Your task to perform on an android device: change keyboard looks Image 0: 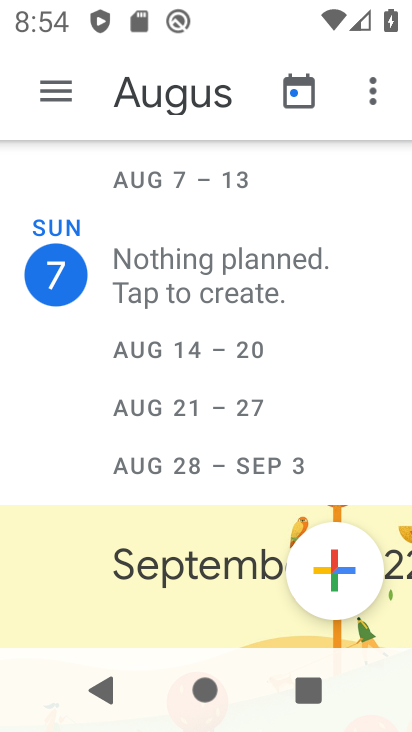
Step 0: press home button
Your task to perform on an android device: change keyboard looks Image 1: 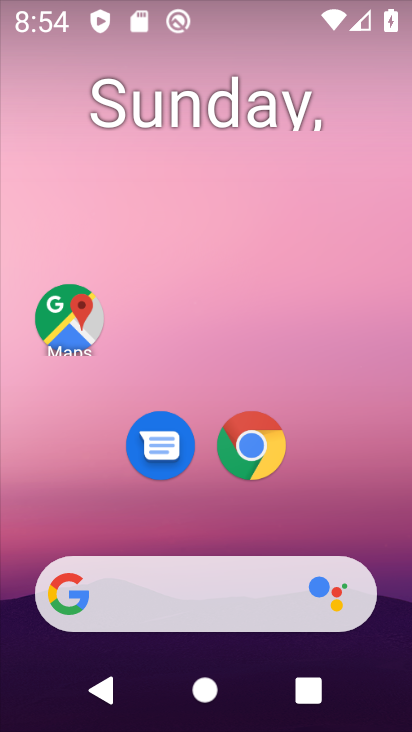
Step 1: press home button
Your task to perform on an android device: change keyboard looks Image 2: 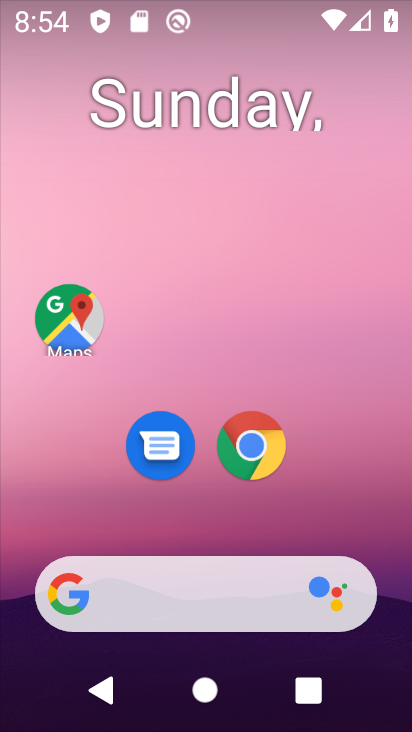
Step 2: drag from (321, 492) to (325, 80)
Your task to perform on an android device: change keyboard looks Image 3: 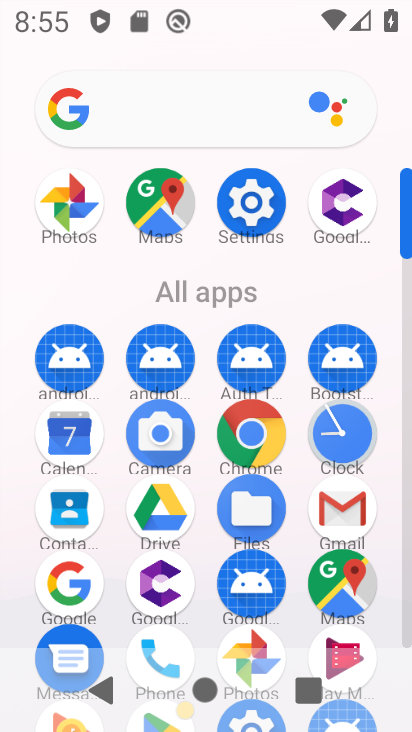
Step 3: drag from (251, 651) to (343, 150)
Your task to perform on an android device: change keyboard looks Image 4: 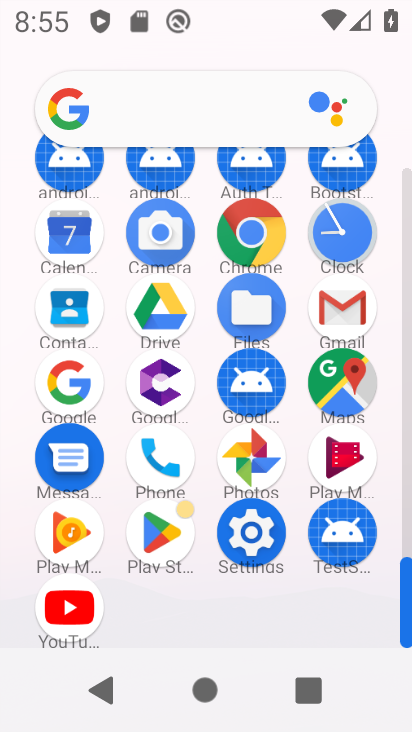
Step 4: click (259, 520)
Your task to perform on an android device: change keyboard looks Image 5: 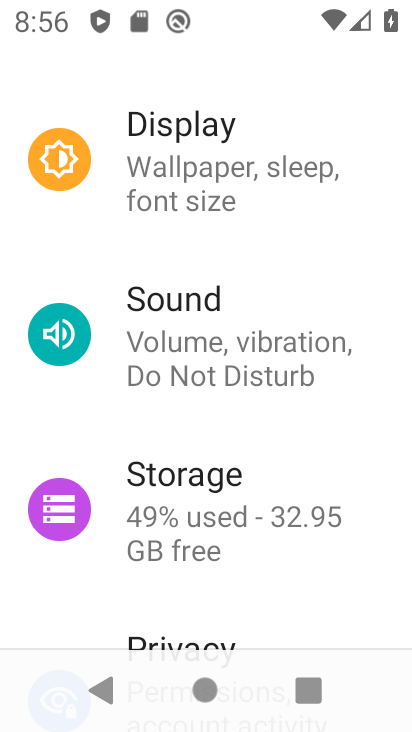
Step 5: drag from (239, 533) to (277, 112)
Your task to perform on an android device: change keyboard looks Image 6: 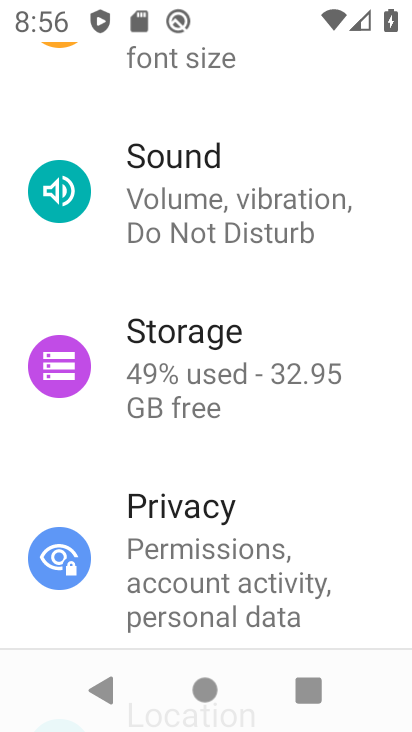
Step 6: drag from (304, 479) to (336, 64)
Your task to perform on an android device: change keyboard looks Image 7: 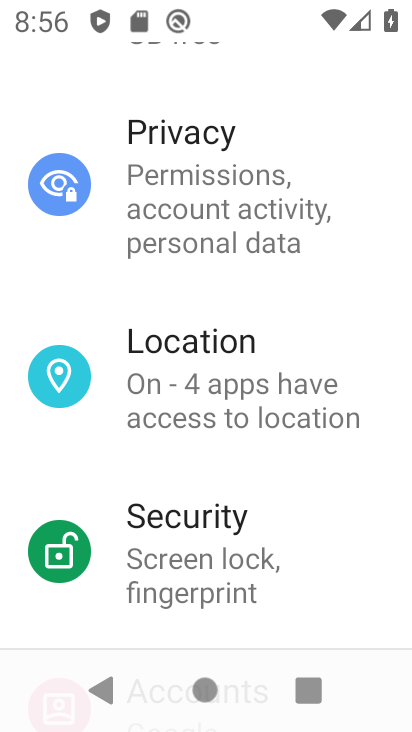
Step 7: drag from (242, 589) to (292, 96)
Your task to perform on an android device: change keyboard looks Image 8: 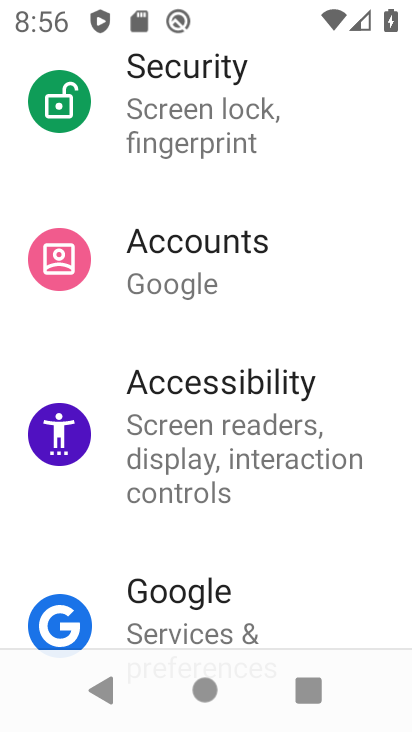
Step 8: drag from (262, 569) to (313, 3)
Your task to perform on an android device: change keyboard looks Image 9: 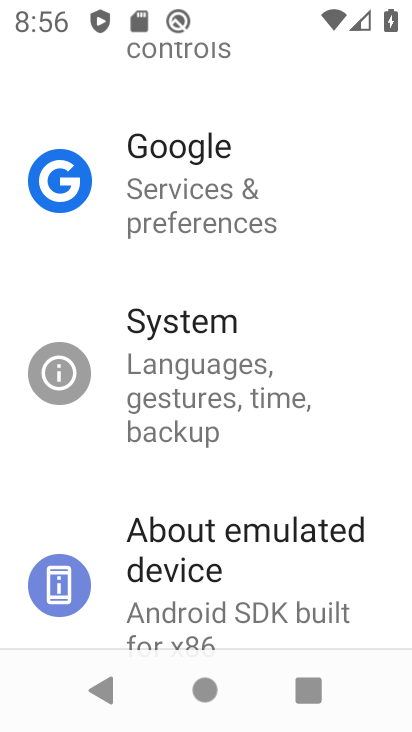
Step 9: click (190, 353)
Your task to perform on an android device: change keyboard looks Image 10: 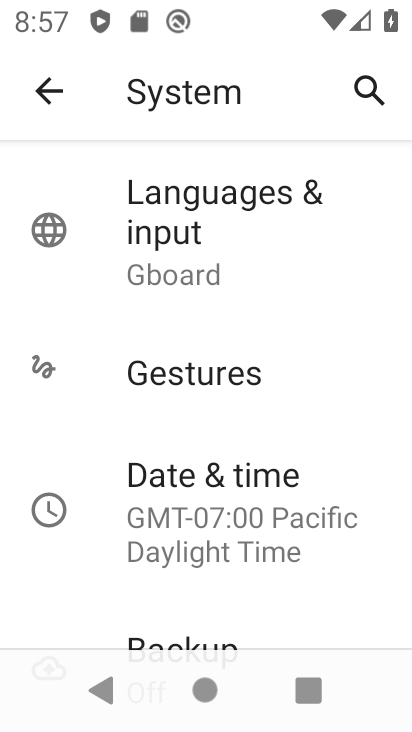
Step 10: click (183, 238)
Your task to perform on an android device: change keyboard looks Image 11: 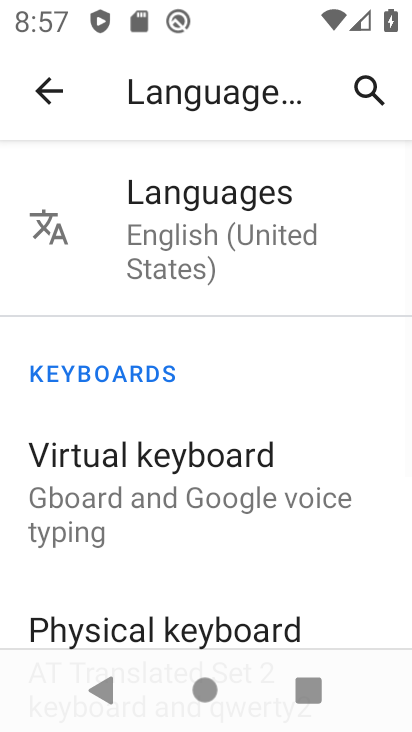
Step 11: drag from (144, 522) to (176, 190)
Your task to perform on an android device: change keyboard looks Image 12: 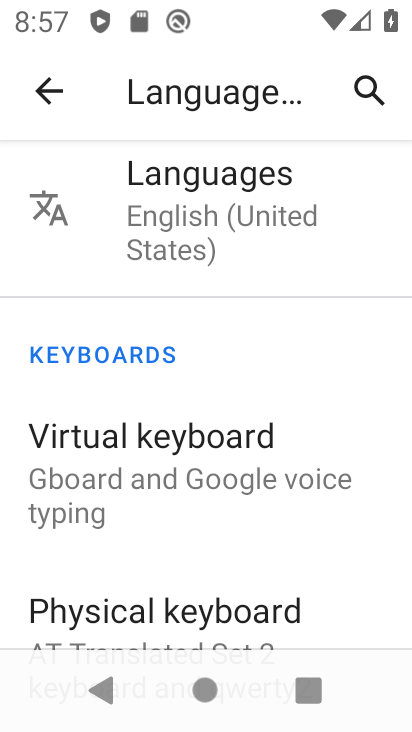
Step 12: click (142, 438)
Your task to perform on an android device: change keyboard looks Image 13: 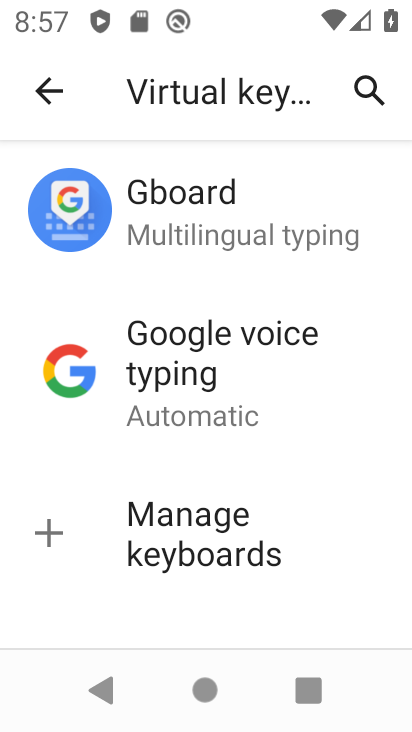
Step 13: click (200, 207)
Your task to perform on an android device: change keyboard looks Image 14: 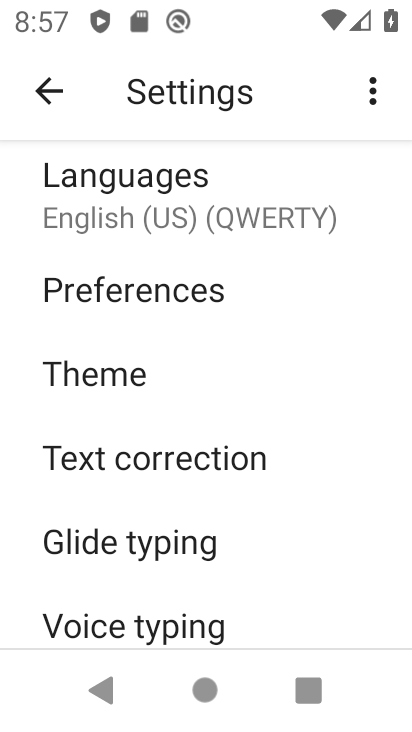
Step 14: click (86, 363)
Your task to perform on an android device: change keyboard looks Image 15: 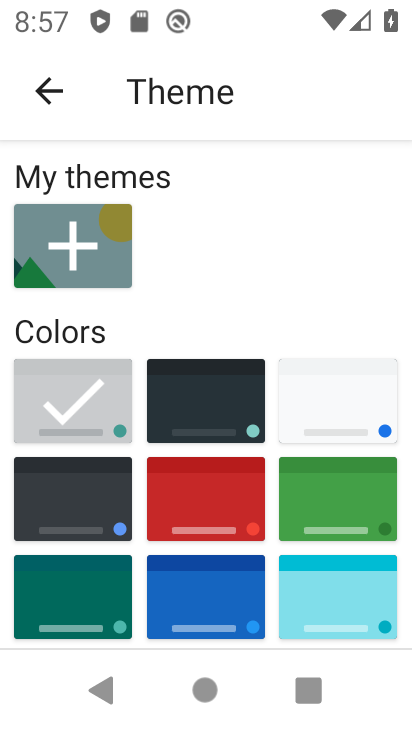
Step 15: click (198, 400)
Your task to perform on an android device: change keyboard looks Image 16: 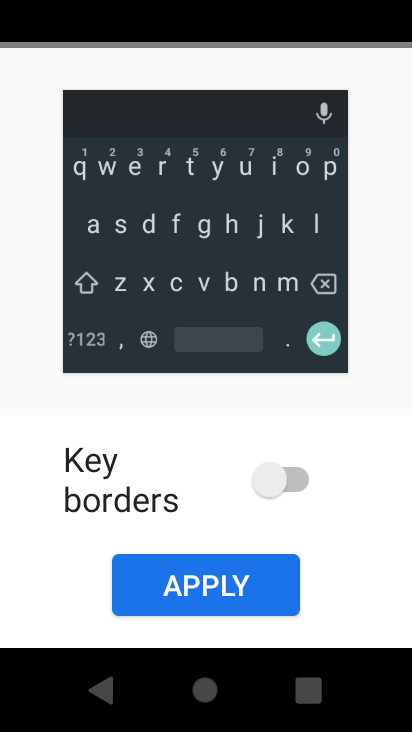
Step 16: click (281, 482)
Your task to perform on an android device: change keyboard looks Image 17: 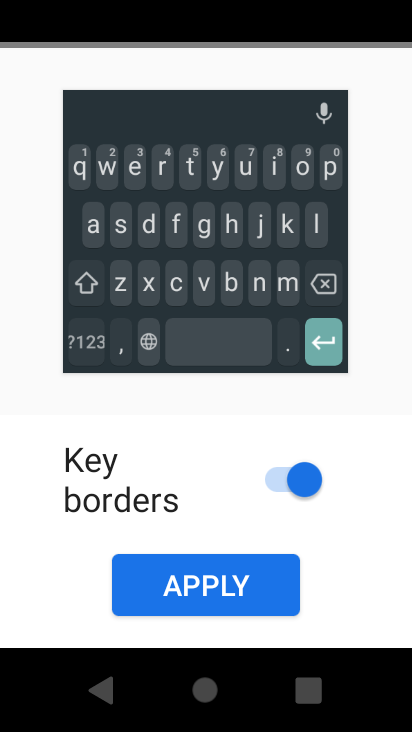
Step 17: click (190, 582)
Your task to perform on an android device: change keyboard looks Image 18: 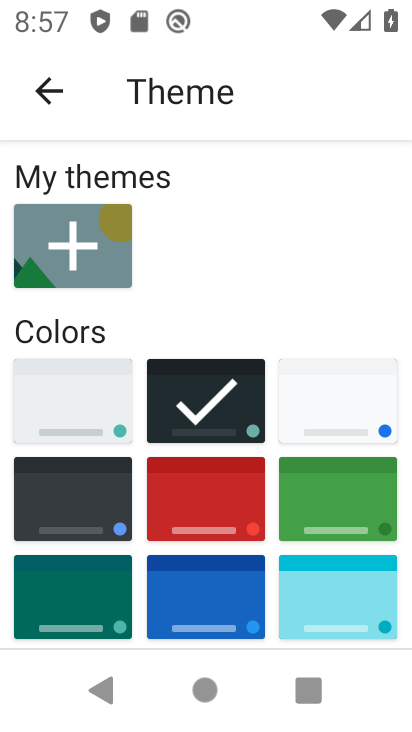
Step 18: task complete